Your task to perform on an android device: Go to wifi settings Image 0: 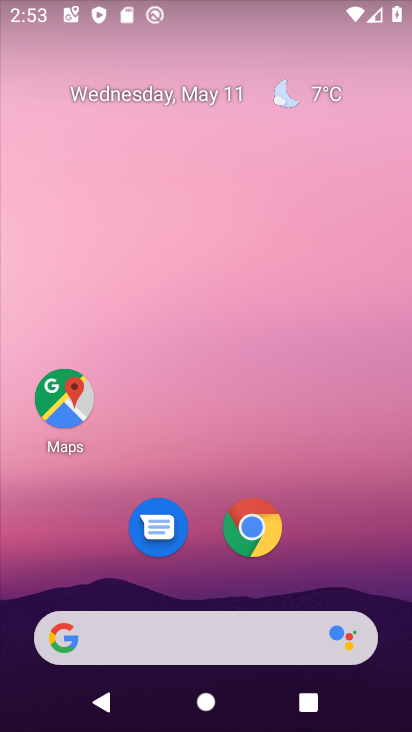
Step 0: drag from (326, 572) to (322, 0)
Your task to perform on an android device: Go to wifi settings Image 1: 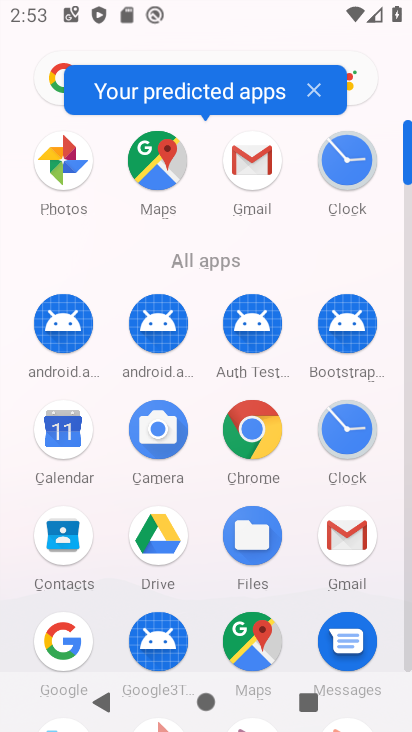
Step 1: click (411, 483)
Your task to perform on an android device: Go to wifi settings Image 2: 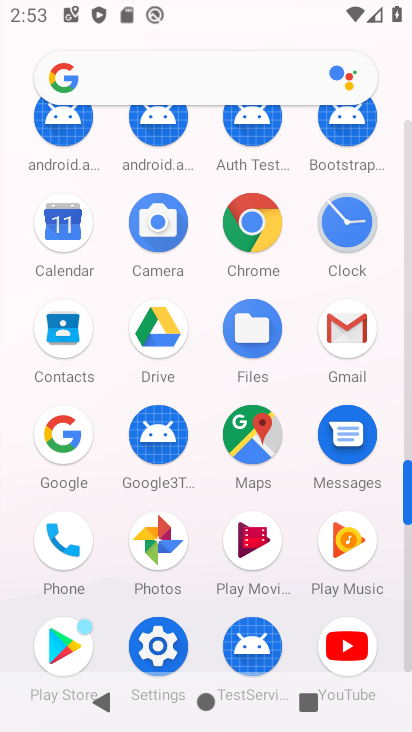
Step 2: click (171, 653)
Your task to perform on an android device: Go to wifi settings Image 3: 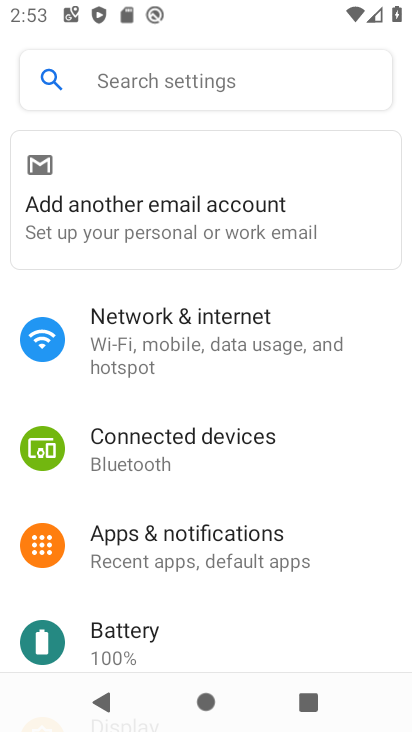
Step 3: click (166, 352)
Your task to perform on an android device: Go to wifi settings Image 4: 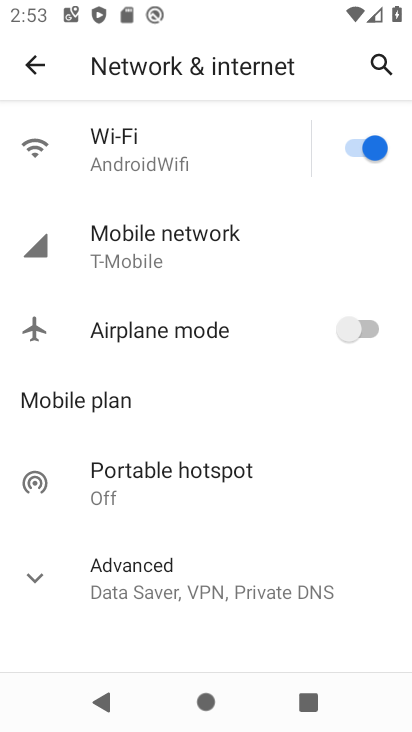
Step 4: click (115, 159)
Your task to perform on an android device: Go to wifi settings Image 5: 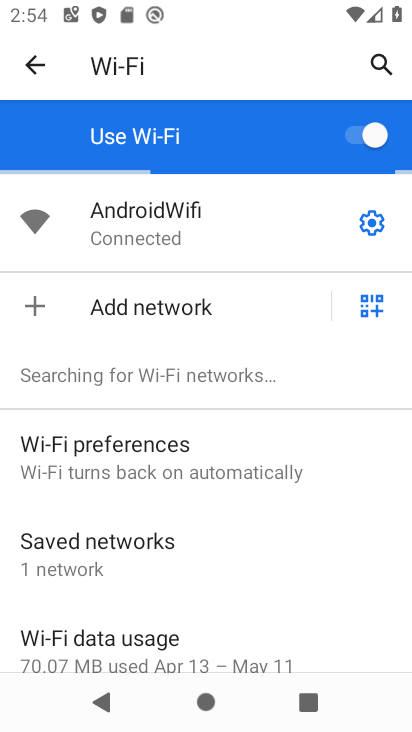
Step 5: task complete